Your task to perform on an android device: turn on javascript in the chrome app Image 0: 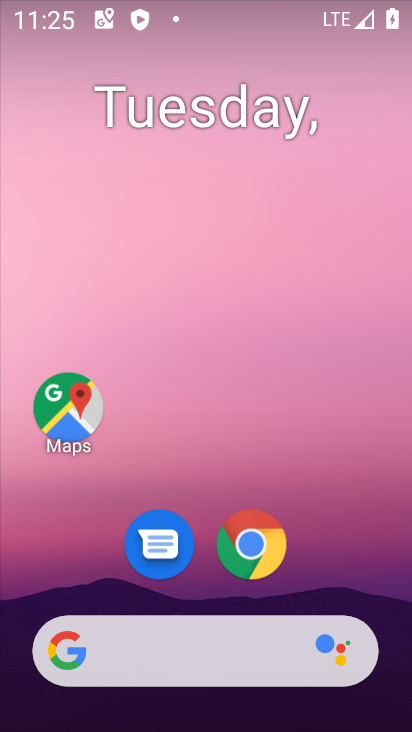
Step 0: drag from (391, 611) to (244, 49)
Your task to perform on an android device: turn on javascript in the chrome app Image 1: 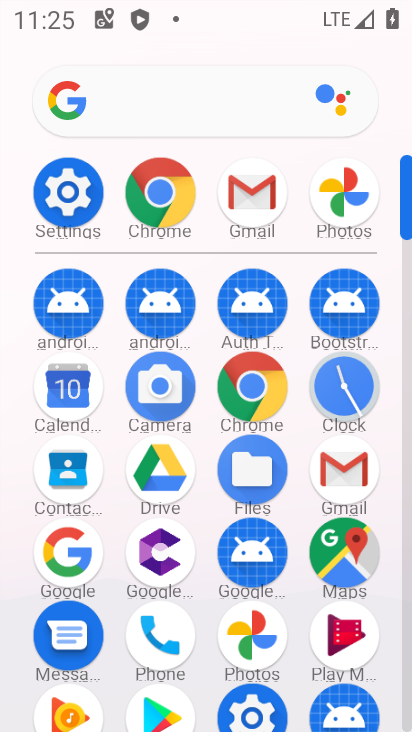
Step 1: click (157, 190)
Your task to perform on an android device: turn on javascript in the chrome app Image 2: 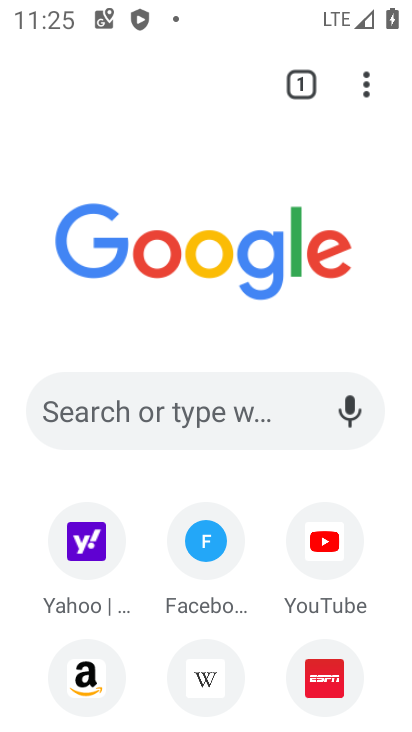
Step 2: click (372, 86)
Your task to perform on an android device: turn on javascript in the chrome app Image 3: 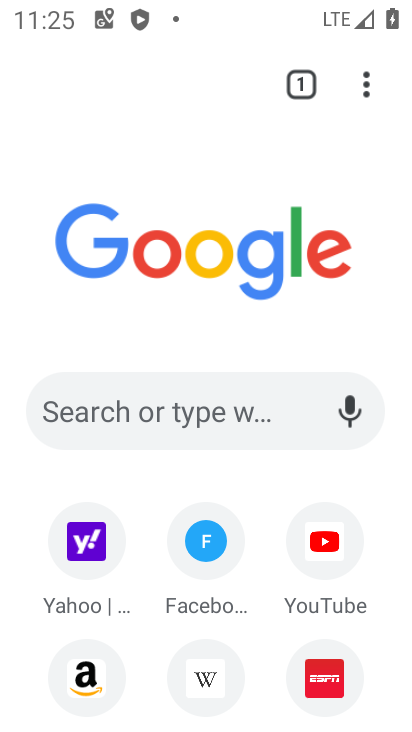
Step 3: click (372, 86)
Your task to perform on an android device: turn on javascript in the chrome app Image 4: 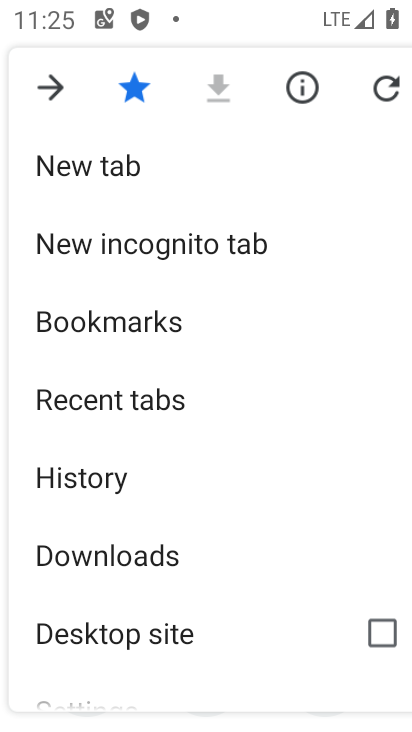
Step 4: drag from (192, 603) to (165, 215)
Your task to perform on an android device: turn on javascript in the chrome app Image 5: 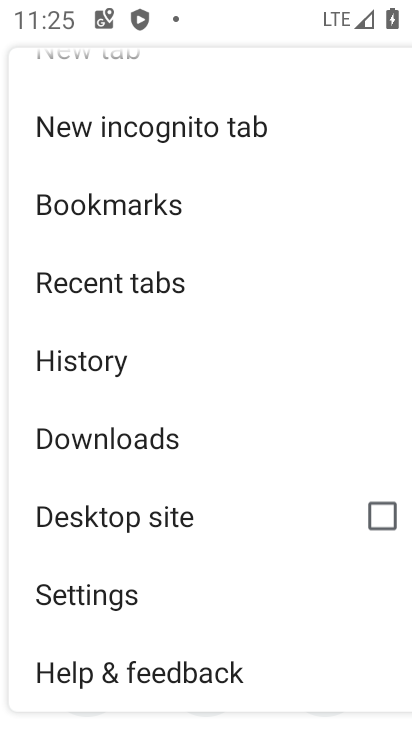
Step 5: click (109, 588)
Your task to perform on an android device: turn on javascript in the chrome app Image 6: 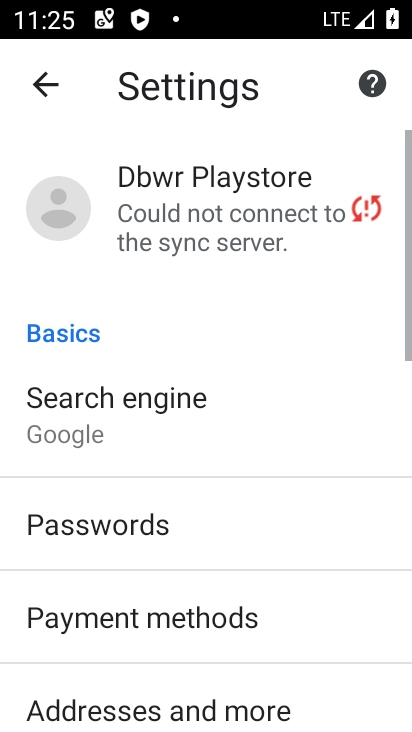
Step 6: drag from (101, 674) to (135, 127)
Your task to perform on an android device: turn on javascript in the chrome app Image 7: 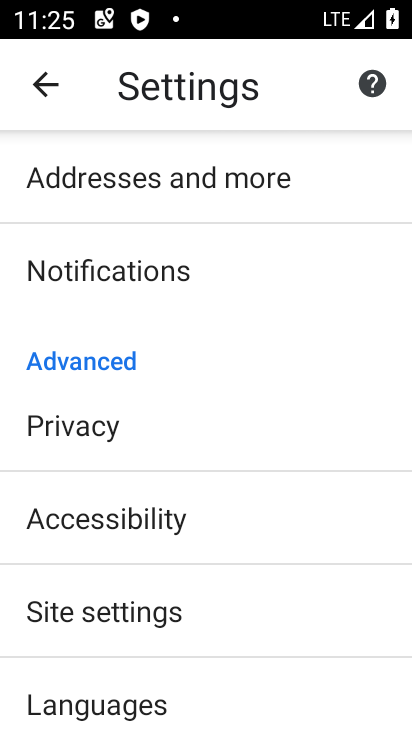
Step 7: drag from (190, 662) to (209, 260)
Your task to perform on an android device: turn on javascript in the chrome app Image 8: 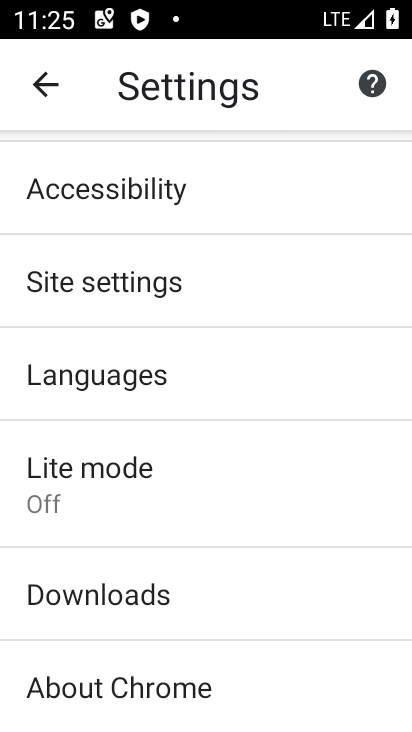
Step 8: click (214, 294)
Your task to perform on an android device: turn on javascript in the chrome app Image 9: 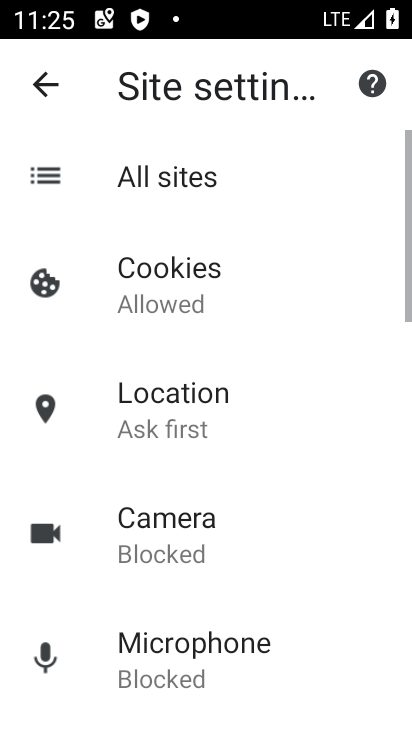
Step 9: press back button
Your task to perform on an android device: turn on javascript in the chrome app Image 10: 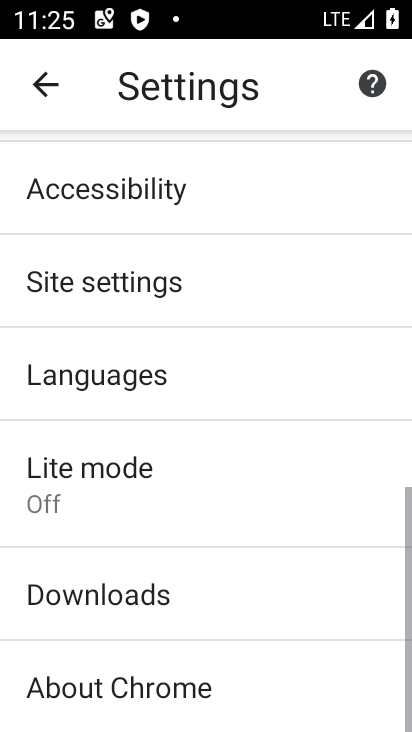
Step 10: click (116, 263)
Your task to perform on an android device: turn on javascript in the chrome app Image 11: 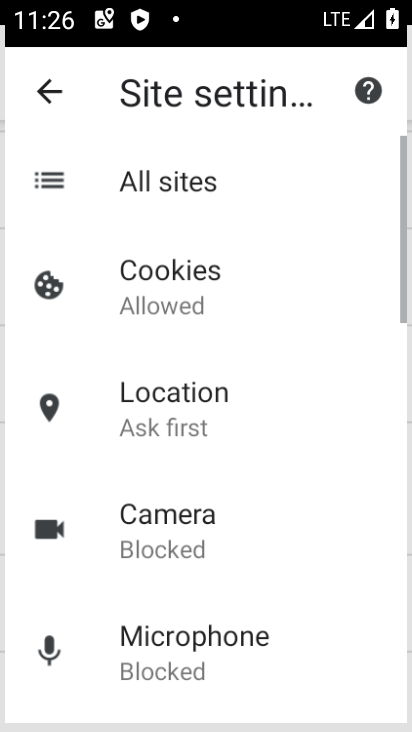
Step 11: drag from (180, 504) to (171, 227)
Your task to perform on an android device: turn on javascript in the chrome app Image 12: 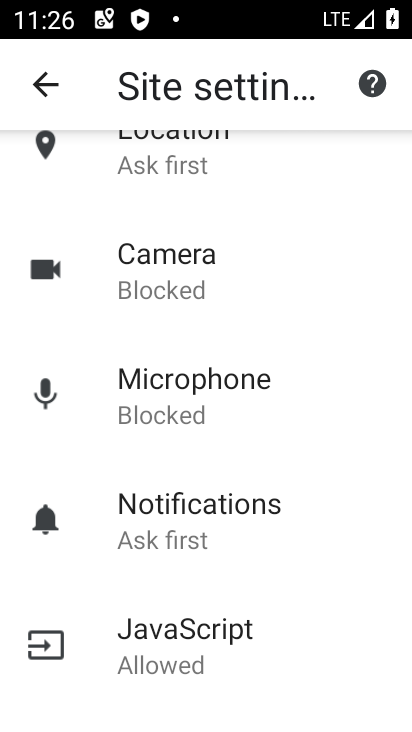
Step 12: click (221, 651)
Your task to perform on an android device: turn on javascript in the chrome app Image 13: 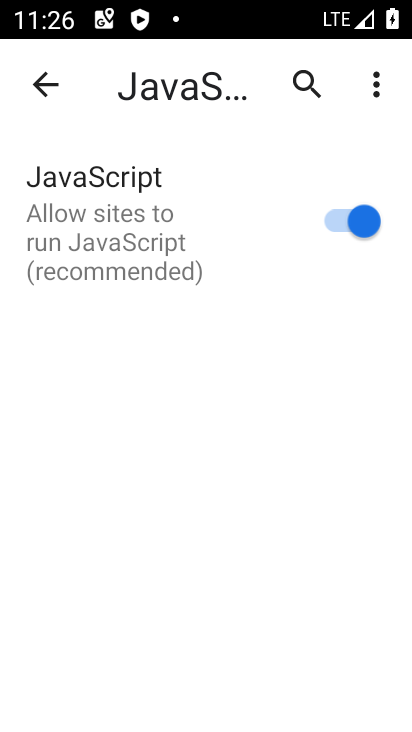
Step 13: task complete